Your task to perform on an android device: change the clock display to digital Image 0: 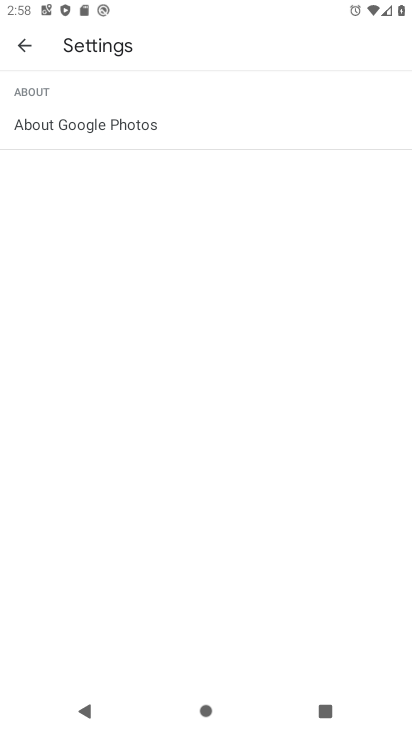
Step 0: press home button
Your task to perform on an android device: change the clock display to digital Image 1: 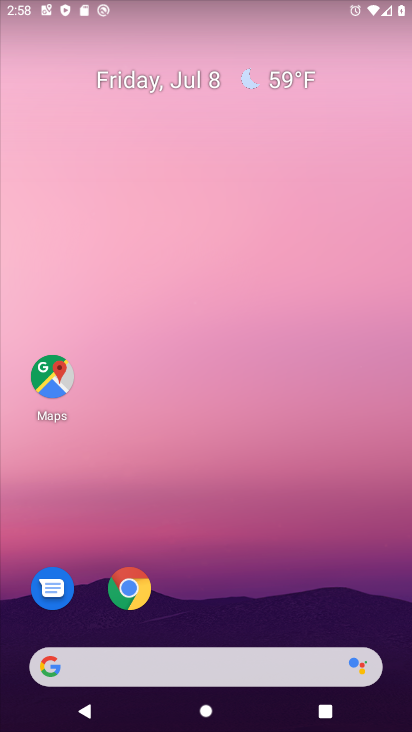
Step 1: drag from (245, 592) to (265, 288)
Your task to perform on an android device: change the clock display to digital Image 2: 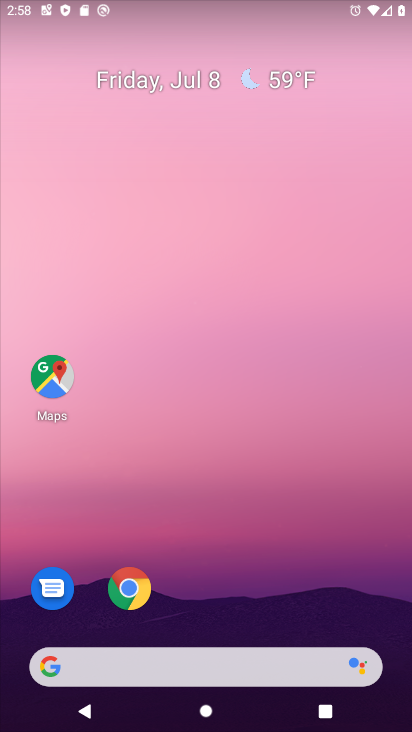
Step 2: drag from (233, 629) to (279, 26)
Your task to perform on an android device: change the clock display to digital Image 3: 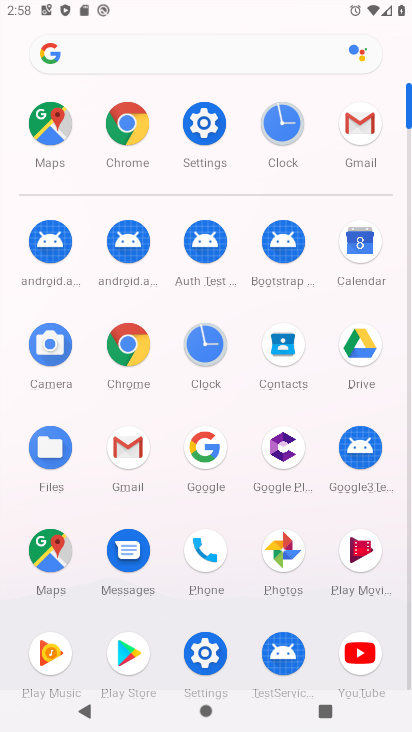
Step 3: click (207, 358)
Your task to perform on an android device: change the clock display to digital Image 4: 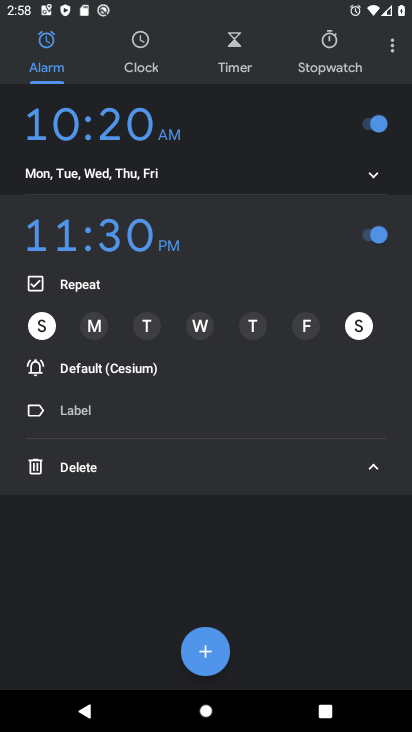
Step 4: click (396, 52)
Your task to perform on an android device: change the clock display to digital Image 5: 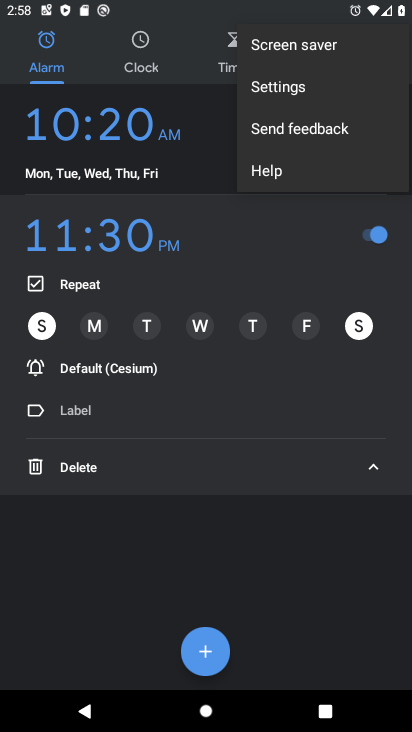
Step 5: click (257, 98)
Your task to perform on an android device: change the clock display to digital Image 6: 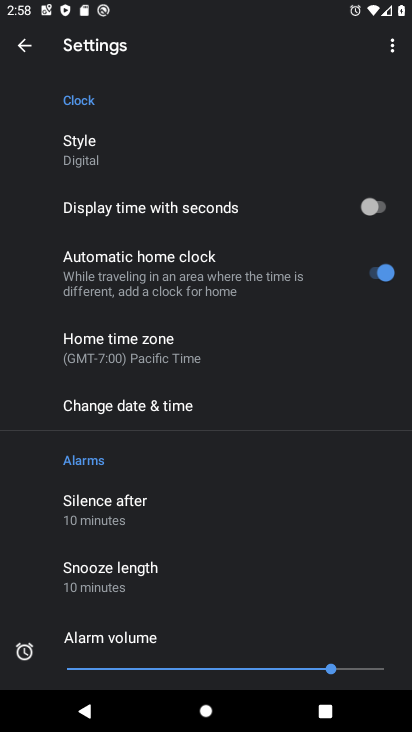
Step 6: task complete